Your task to perform on an android device: find photos in the google photos app Image 0: 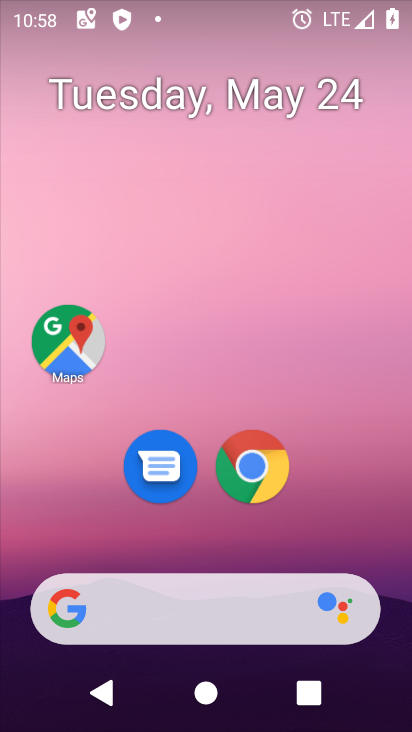
Step 0: drag from (381, 555) to (371, 170)
Your task to perform on an android device: find photos in the google photos app Image 1: 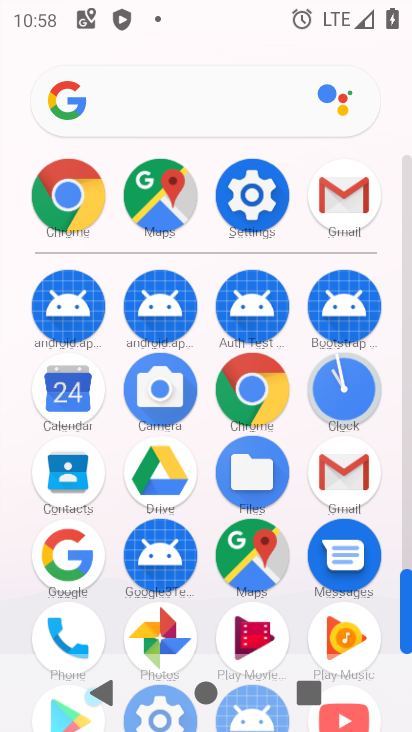
Step 1: drag from (386, 524) to (391, 266)
Your task to perform on an android device: find photos in the google photos app Image 2: 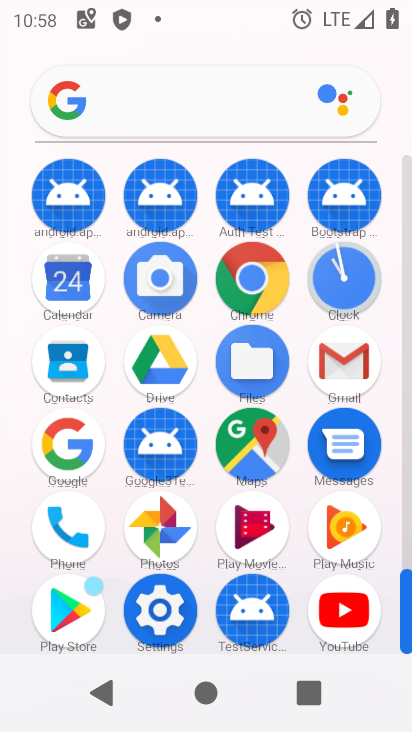
Step 2: click (155, 516)
Your task to perform on an android device: find photos in the google photos app Image 3: 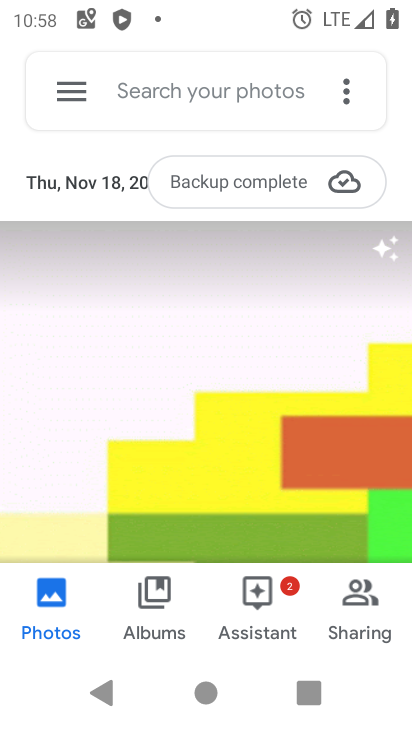
Step 3: click (215, 387)
Your task to perform on an android device: find photos in the google photos app Image 4: 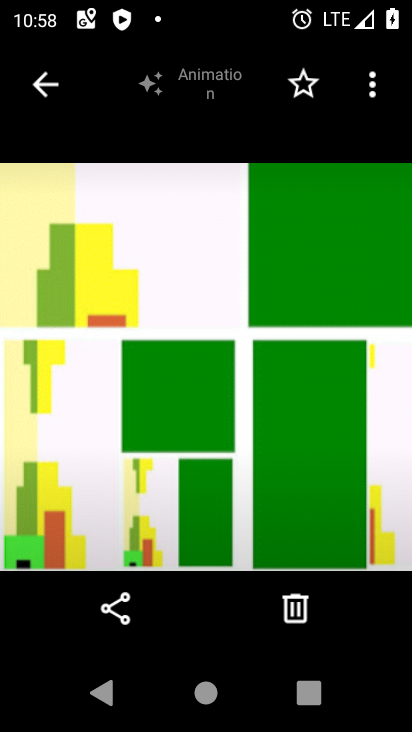
Step 4: task complete